Your task to perform on an android device: Open Youtube and go to "Your channel" Image 0: 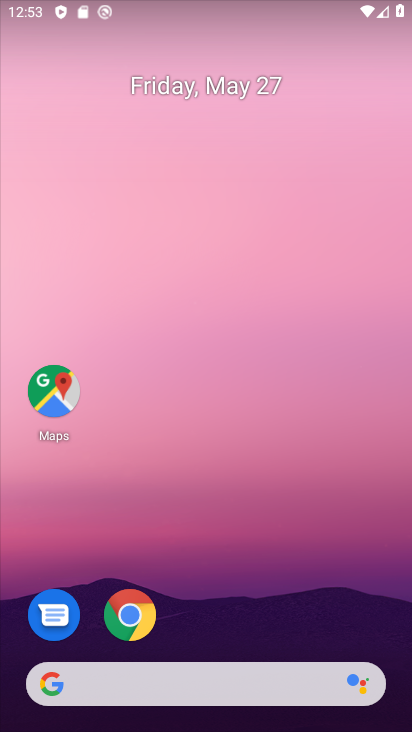
Step 0: drag from (261, 537) to (321, 217)
Your task to perform on an android device: Open Youtube and go to "Your channel" Image 1: 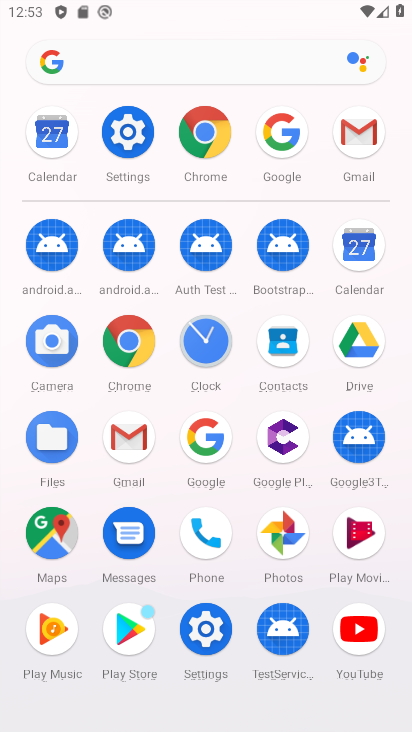
Step 1: click (346, 637)
Your task to perform on an android device: Open Youtube and go to "Your channel" Image 2: 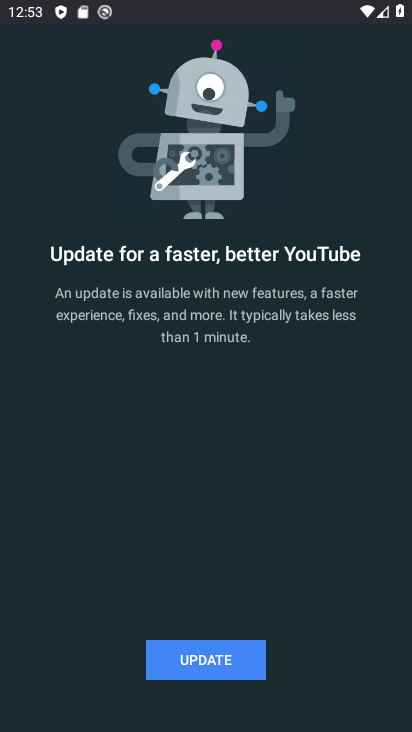
Step 2: click (232, 657)
Your task to perform on an android device: Open Youtube and go to "Your channel" Image 3: 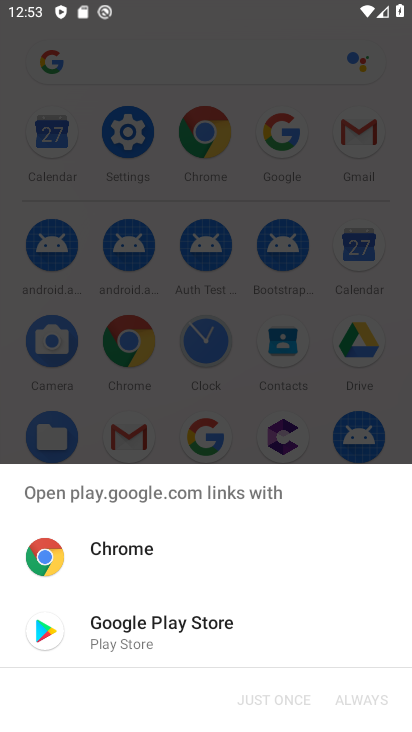
Step 3: click (214, 627)
Your task to perform on an android device: Open Youtube and go to "Your channel" Image 4: 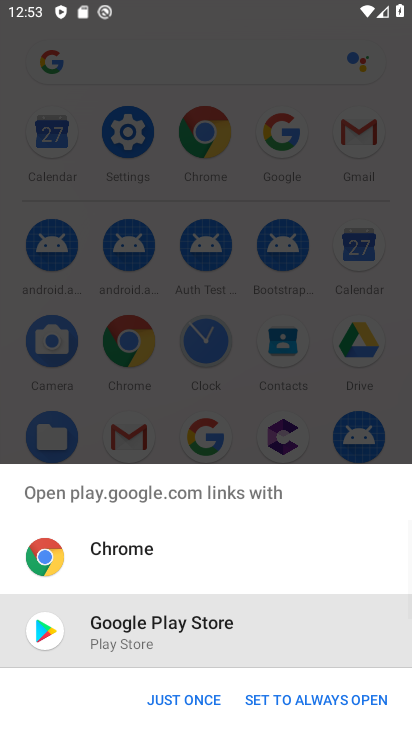
Step 4: click (204, 705)
Your task to perform on an android device: Open Youtube and go to "Your channel" Image 5: 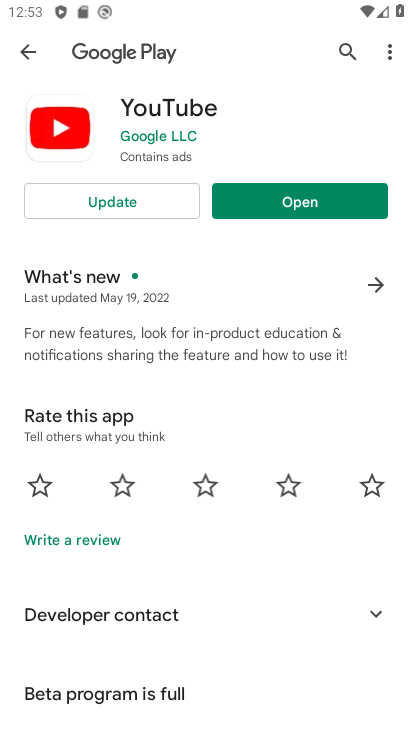
Step 5: click (155, 207)
Your task to perform on an android device: Open Youtube and go to "Your channel" Image 6: 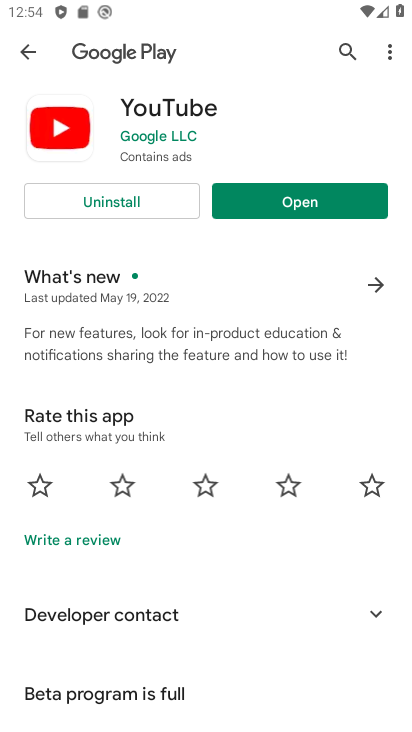
Step 6: click (308, 205)
Your task to perform on an android device: Open Youtube and go to "Your channel" Image 7: 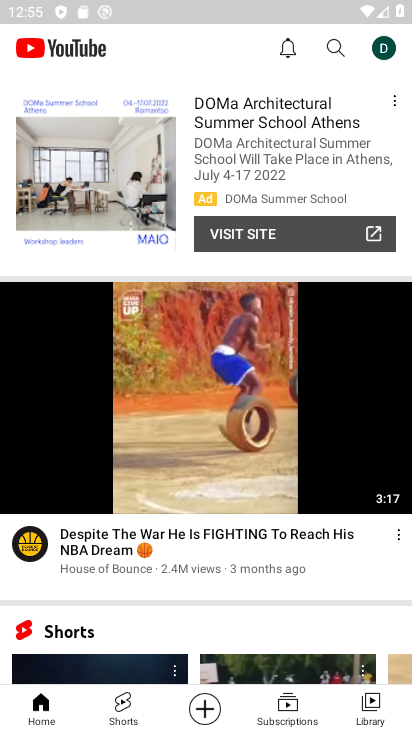
Step 7: click (402, 109)
Your task to perform on an android device: Open Youtube and go to "Your channel" Image 8: 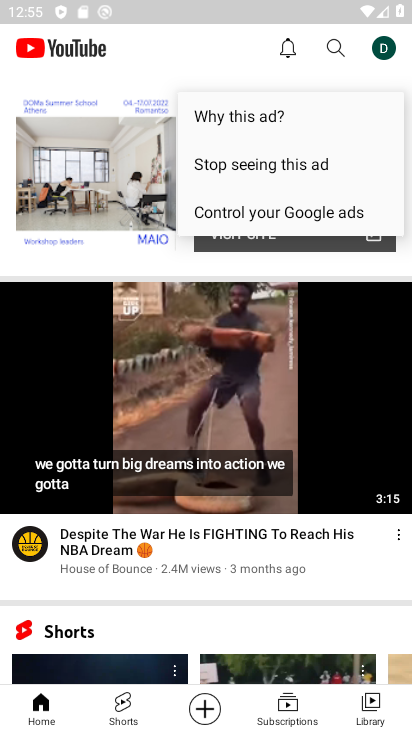
Step 8: click (383, 38)
Your task to perform on an android device: Open Youtube and go to "Your channel" Image 9: 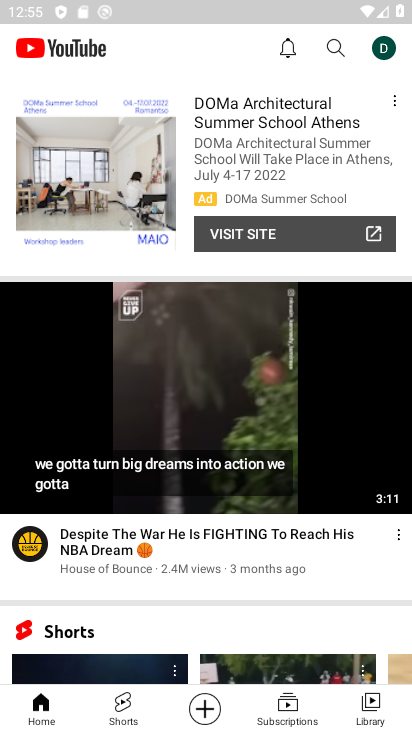
Step 9: click (384, 49)
Your task to perform on an android device: Open Youtube and go to "Your channel" Image 10: 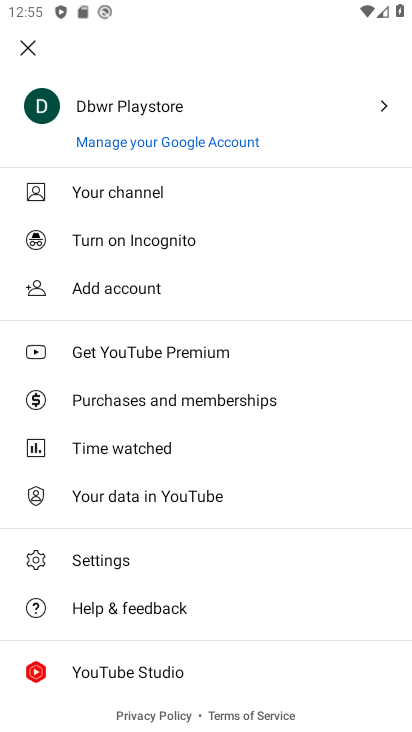
Step 10: click (220, 203)
Your task to perform on an android device: Open Youtube and go to "Your channel" Image 11: 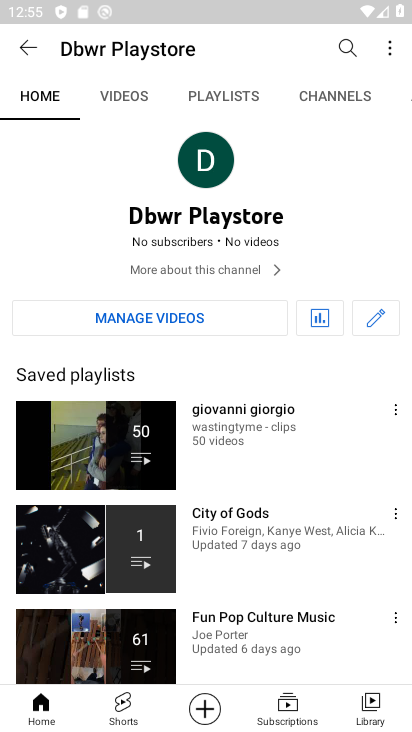
Step 11: task complete